Your task to perform on an android device: open a bookmark in the chrome app Image 0: 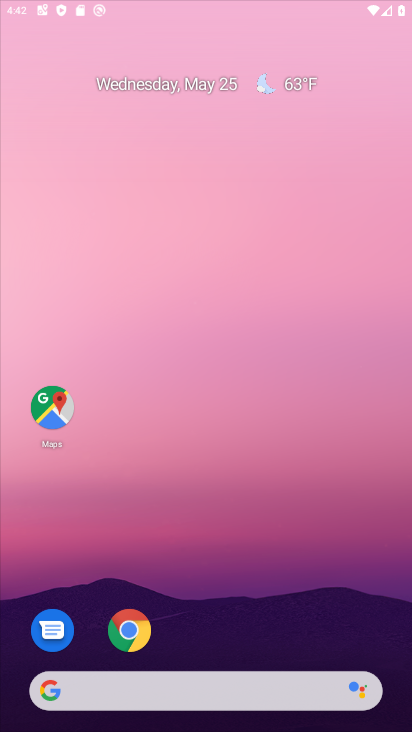
Step 0: click (174, 691)
Your task to perform on an android device: open a bookmark in the chrome app Image 1: 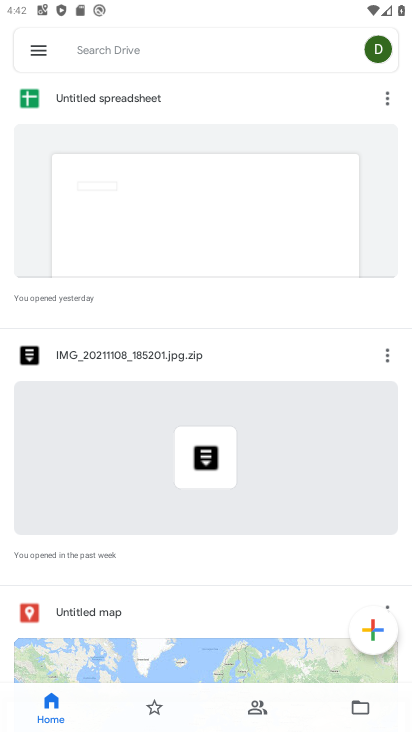
Step 1: press back button
Your task to perform on an android device: open a bookmark in the chrome app Image 2: 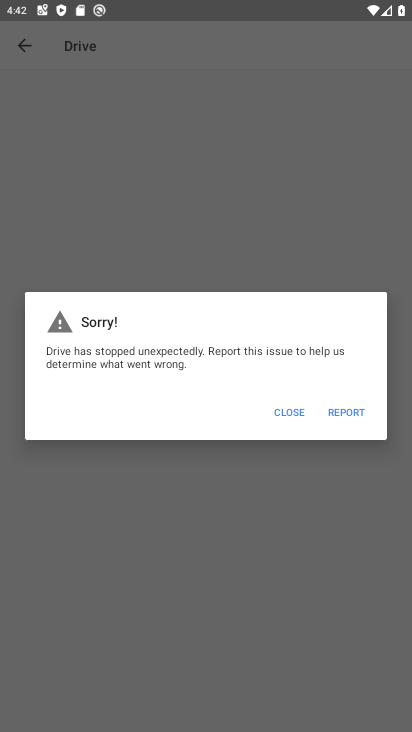
Step 2: press home button
Your task to perform on an android device: open a bookmark in the chrome app Image 3: 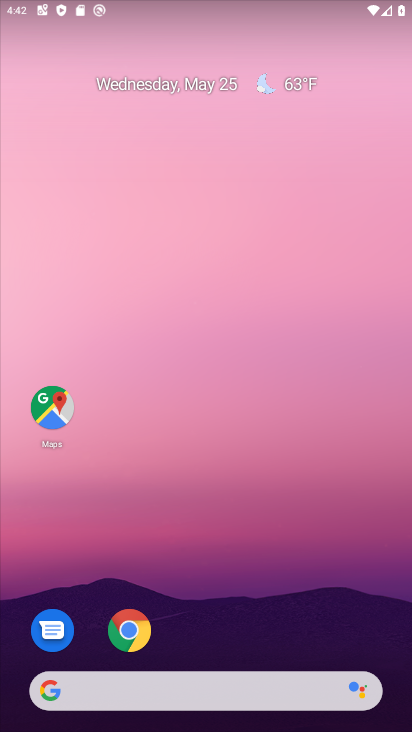
Step 3: click (122, 616)
Your task to perform on an android device: open a bookmark in the chrome app Image 4: 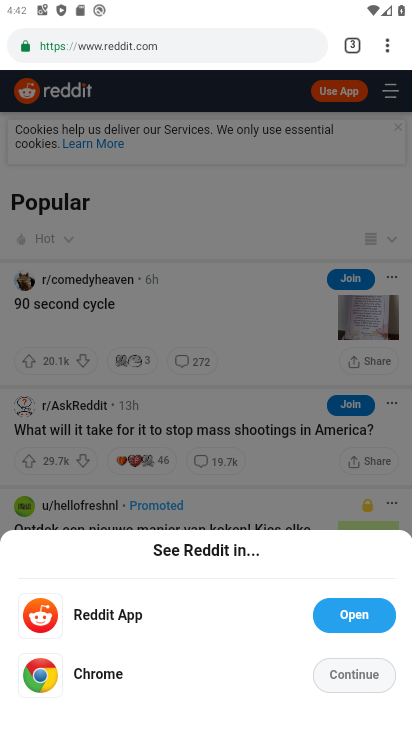
Step 4: drag from (387, 45) to (229, 505)
Your task to perform on an android device: open a bookmark in the chrome app Image 5: 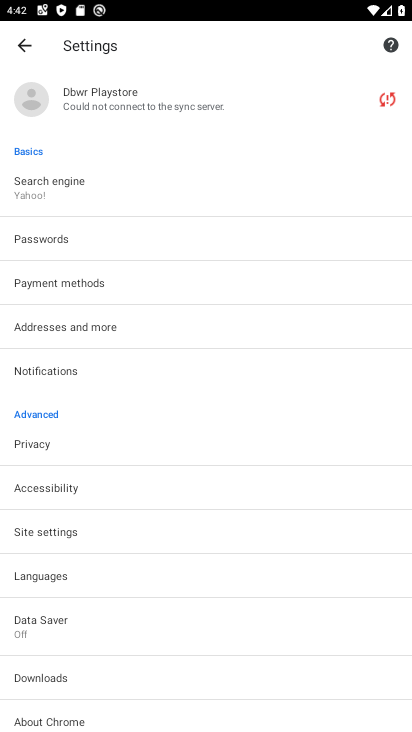
Step 5: click (25, 37)
Your task to perform on an android device: open a bookmark in the chrome app Image 6: 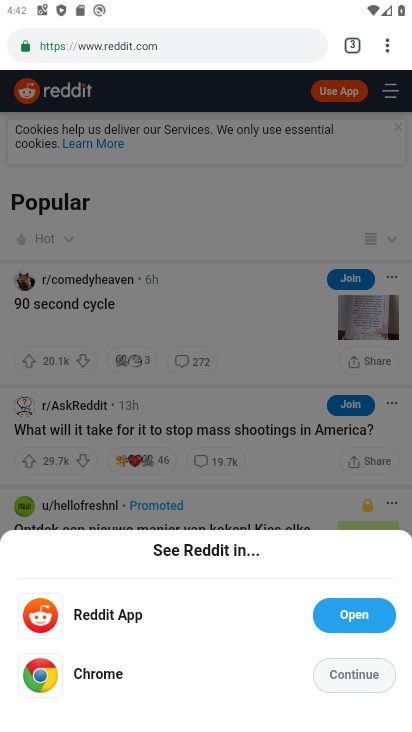
Step 6: task complete